Your task to perform on an android device: add a label to a message in the gmail app Image 0: 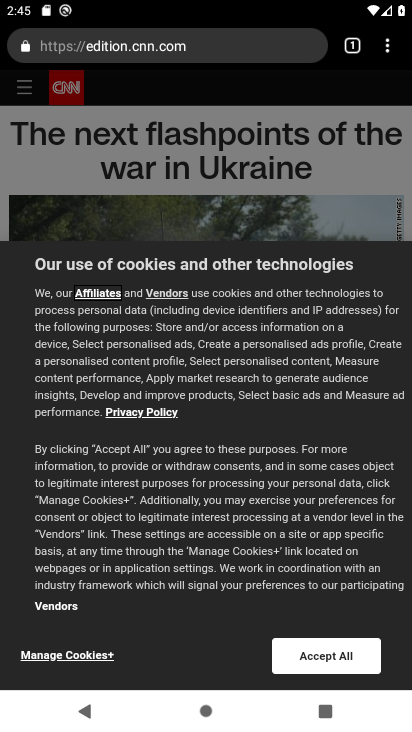
Step 0: press home button
Your task to perform on an android device: add a label to a message in the gmail app Image 1: 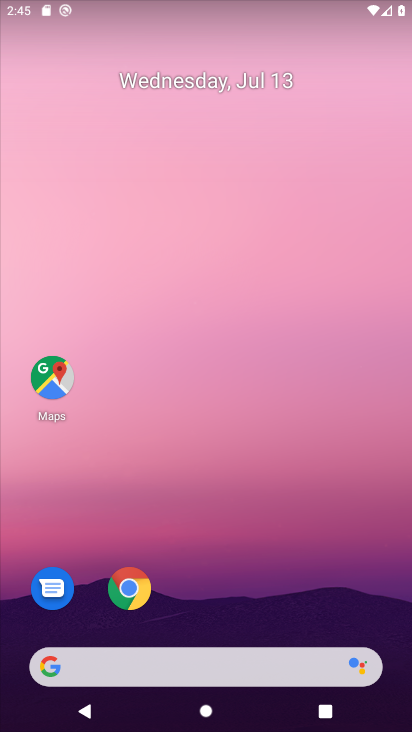
Step 1: drag from (230, 625) to (183, 178)
Your task to perform on an android device: add a label to a message in the gmail app Image 2: 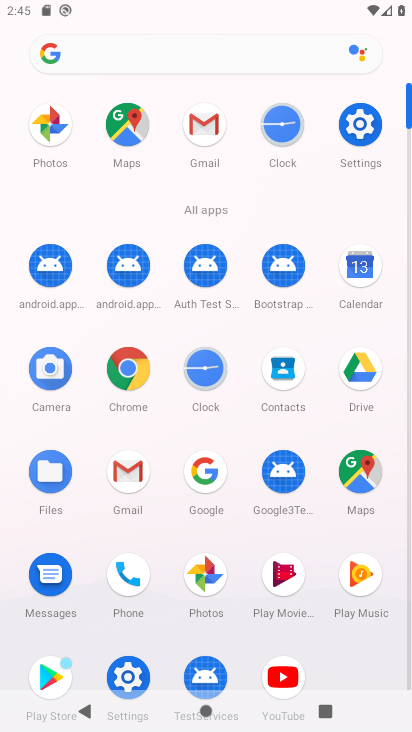
Step 2: click (137, 488)
Your task to perform on an android device: add a label to a message in the gmail app Image 3: 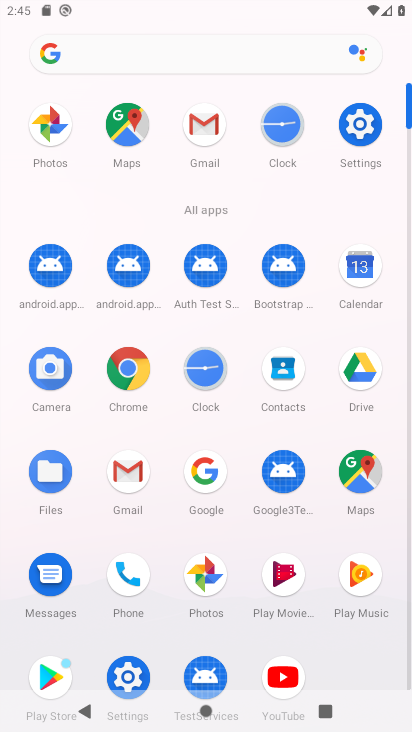
Step 3: click (131, 470)
Your task to perform on an android device: add a label to a message in the gmail app Image 4: 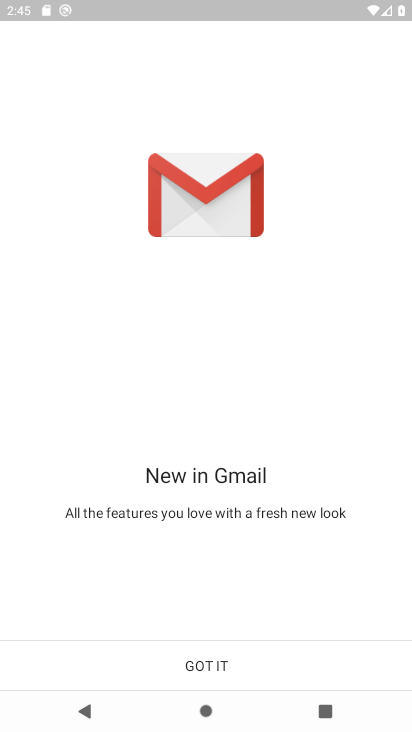
Step 4: click (215, 666)
Your task to perform on an android device: add a label to a message in the gmail app Image 5: 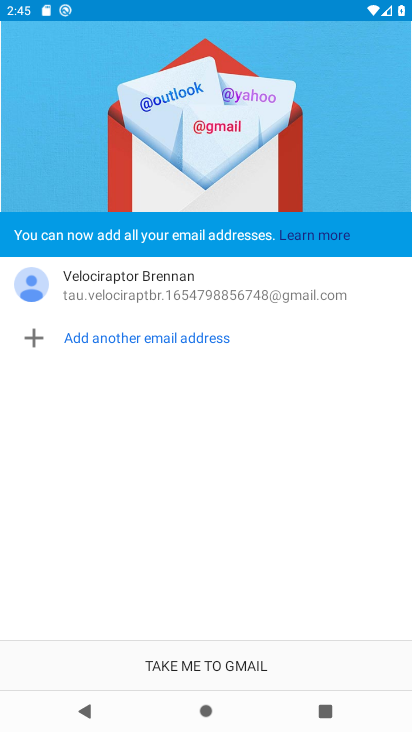
Step 5: click (215, 665)
Your task to perform on an android device: add a label to a message in the gmail app Image 6: 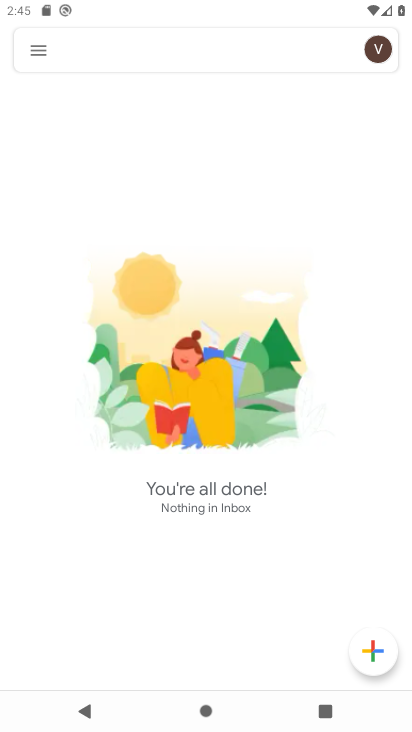
Step 6: task complete